Your task to perform on an android device: Go to Amazon Image 0: 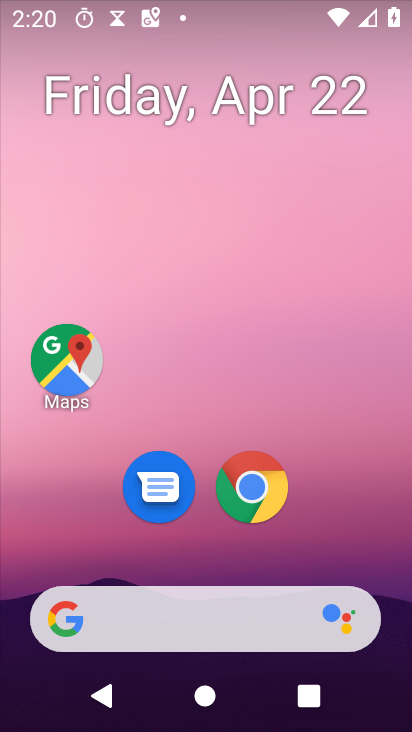
Step 0: drag from (193, 615) to (310, 168)
Your task to perform on an android device: Go to Amazon Image 1: 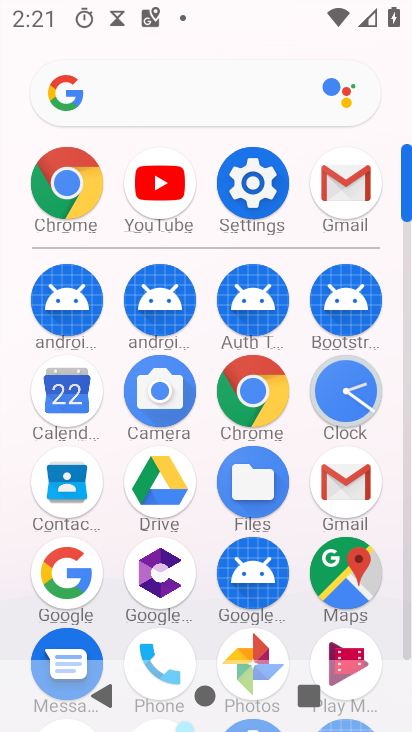
Step 1: click (242, 399)
Your task to perform on an android device: Go to Amazon Image 2: 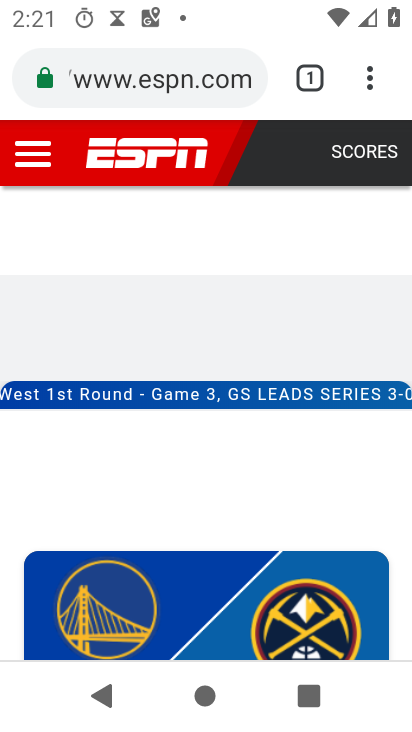
Step 2: drag from (367, 77) to (111, 147)
Your task to perform on an android device: Go to Amazon Image 3: 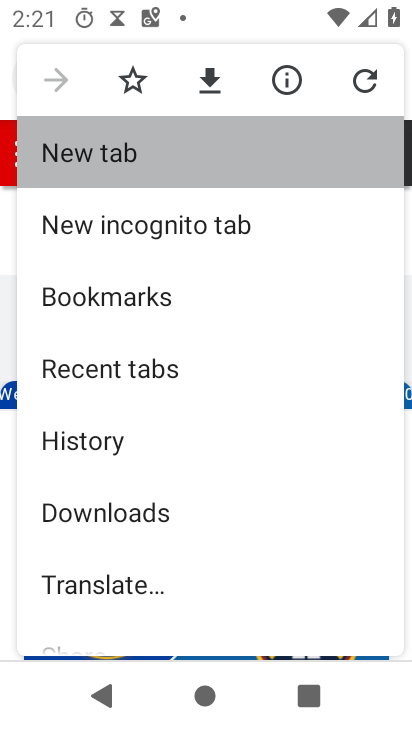
Step 3: click (111, 147)
Your task to perform on an android device: Go to Amazon Image 4: 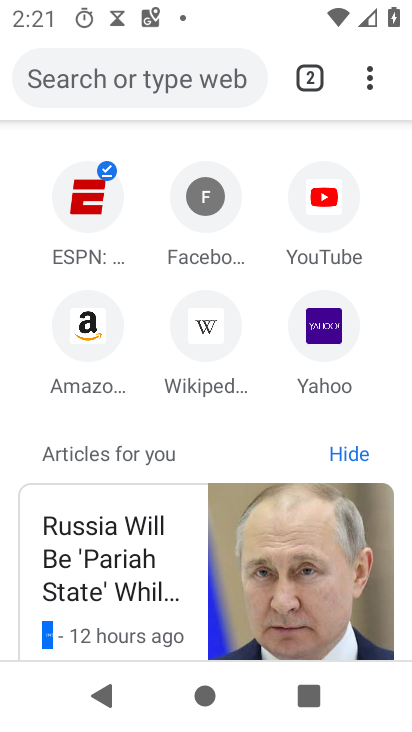
Step 4: click (76, 329)
Your task to perform on an android device: Go to Amazon Image 5: 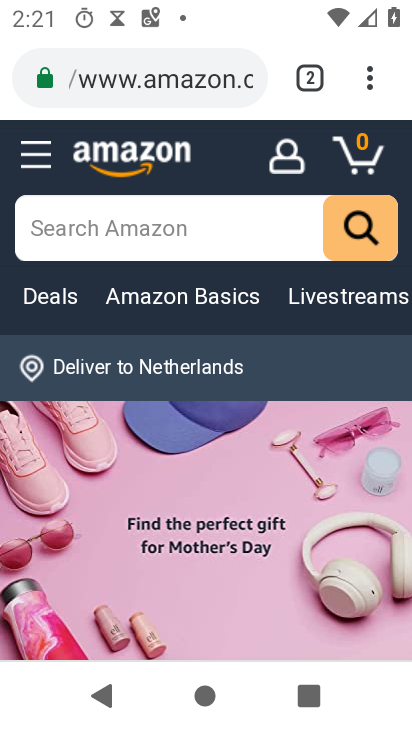
Step 5: task complete